Your task to perform on an android device: toggle translation in the chrome app Image 0: 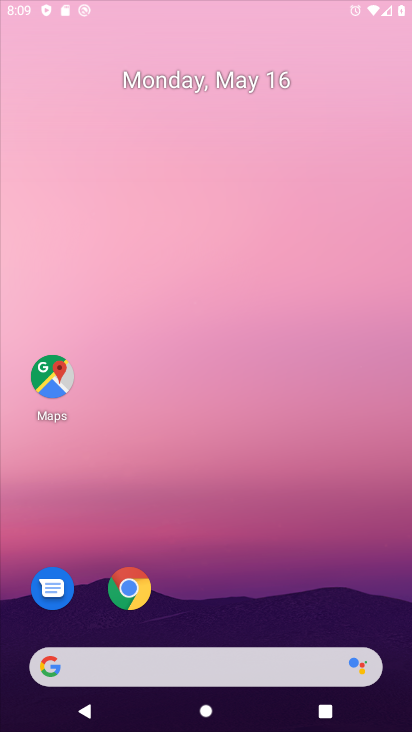
Step 0: drag from (284, 690) to (105, 62)
Your task to perform on an android device: toggle translation in the chrome app Image 1: 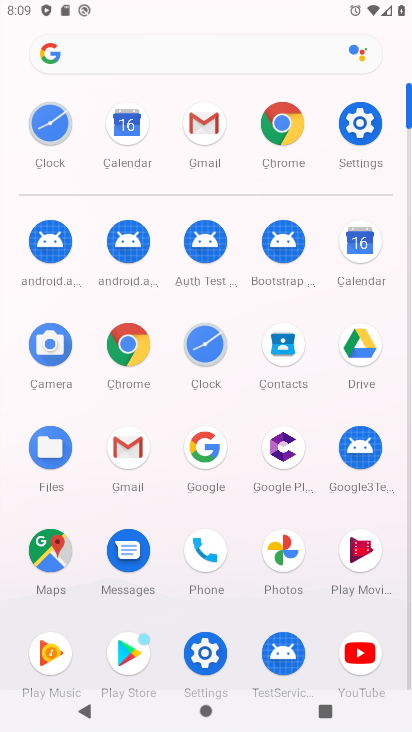
Step 1: click (281, 120)
Your task to perform on an android device: toggle translation in the chrome app Image 2: 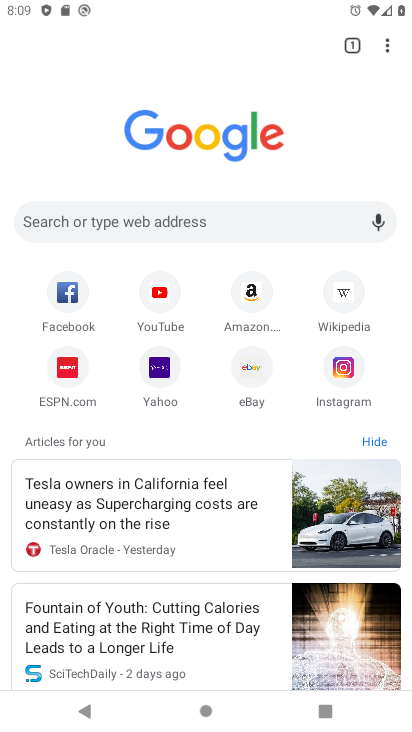
Step 2: click (390, 52)
Your task to perform on an android device: toggle translation in the chrome app Image 3: 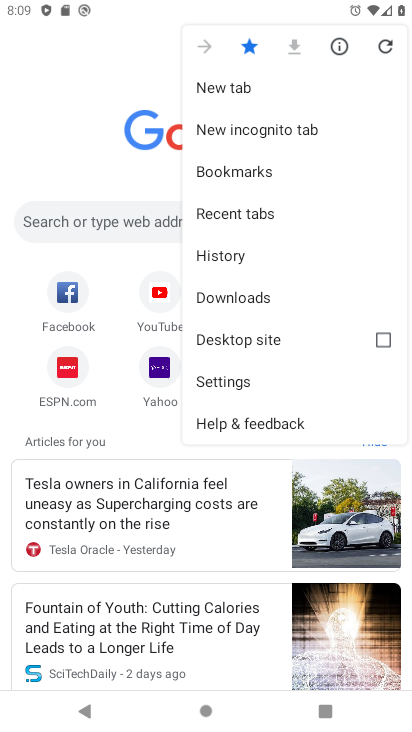
Step 3: click (207, 383)
Your task to perform on an android device: toggle translation in the chrome app Image 4: 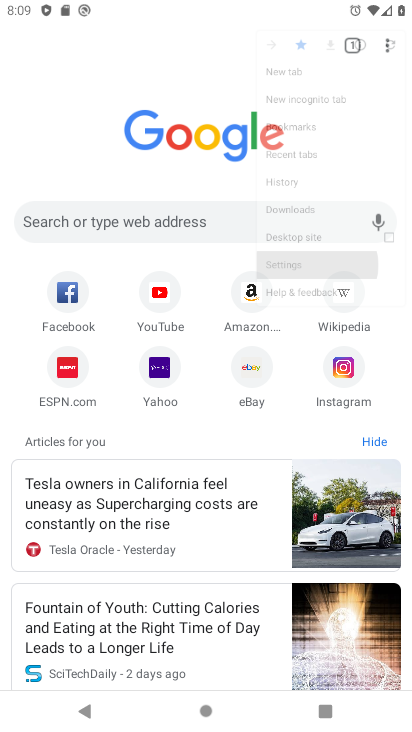
Step 4: click (208, 382)
Your task to perform on an android device: toggle translation in the chrome app Image 5: 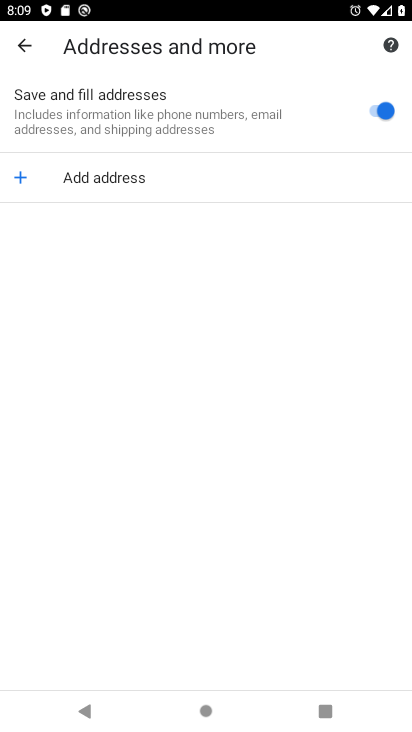
Step 5: click (19, 46)
Your task to perform on an android device: toggle translation in the chrome app Image 6: 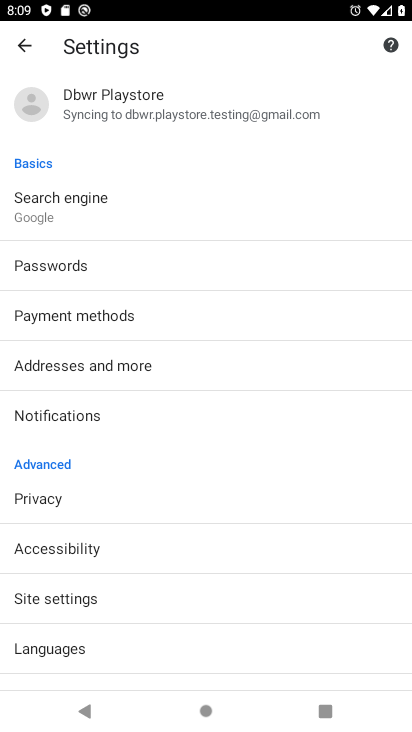
Step 6: click (52, 649)
Your task to perform on an android device: toggle translation in the chrome app Image 7: 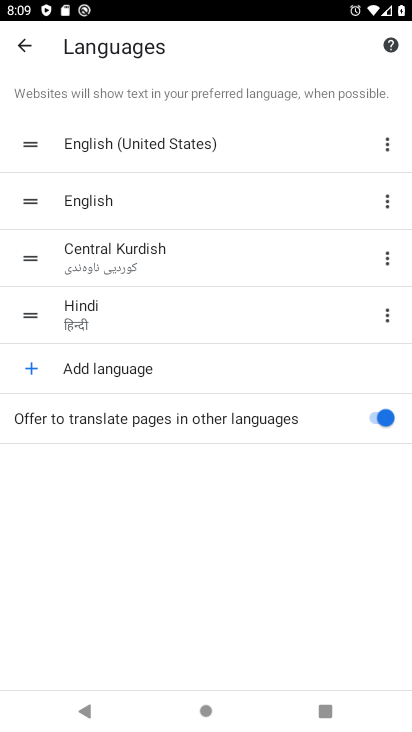
Step 7: click (382, 414)
Your task to perform on an android device: toggle translation in the chrome app Image 8: 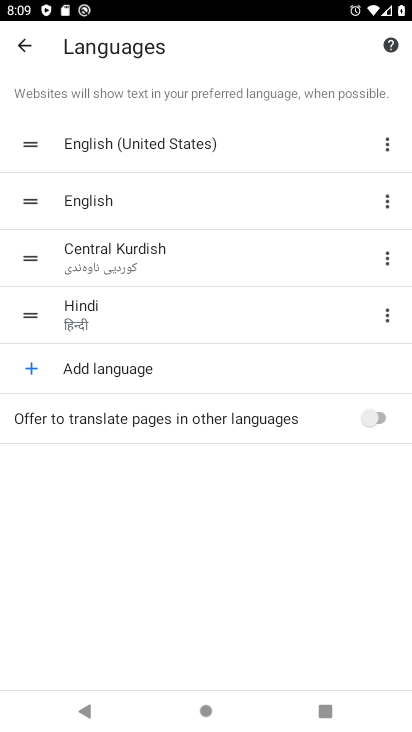
Step 8: task complete